Your task to perform on an android device: Show me recent news Image 0: 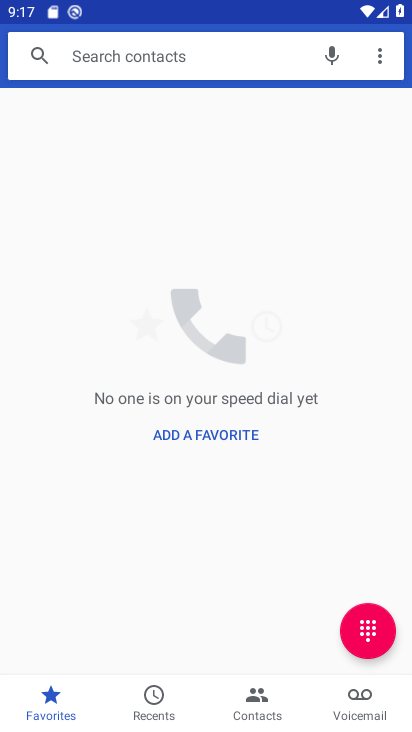
Step 0: press home button
Your task to perform on an android device: Show me recent news Image 1: 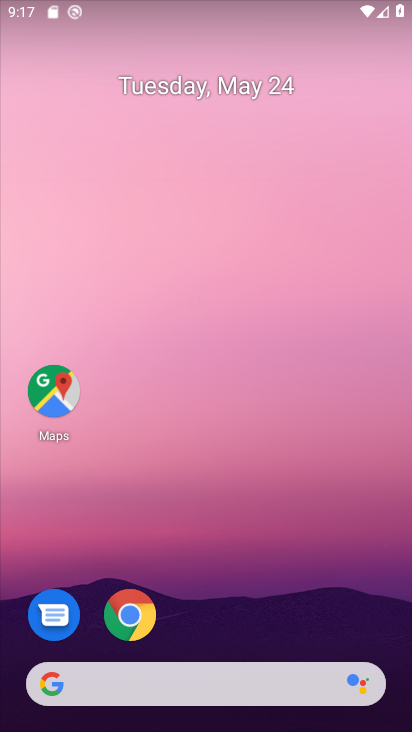
Step 1: task complete